Your task to perform on an android device: turn pop-ups off in chrome Image 0: 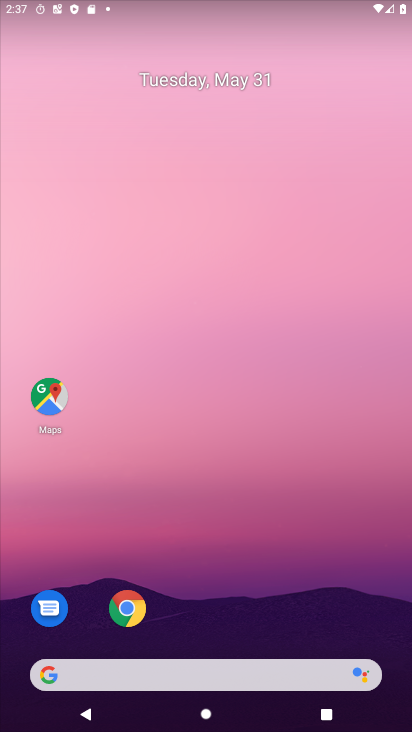
Step 0: click (127, 609)
Your task to perform on an android device: turn pop-ups off in chrome Image 1: 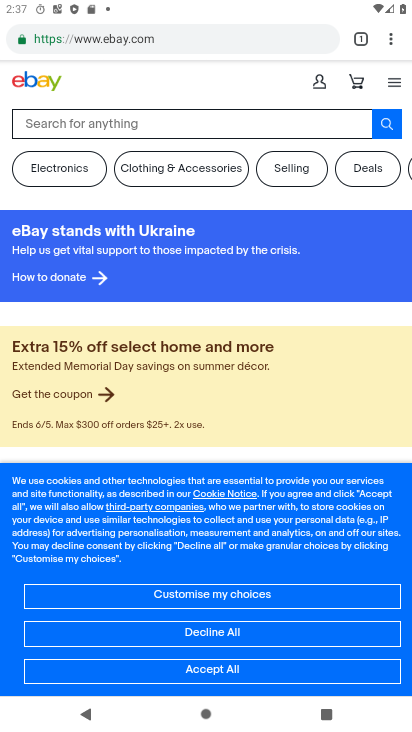
Step 1: click (392, 43)
Your task to perform on an android device: turn pop-ups off in chrome Image 2: 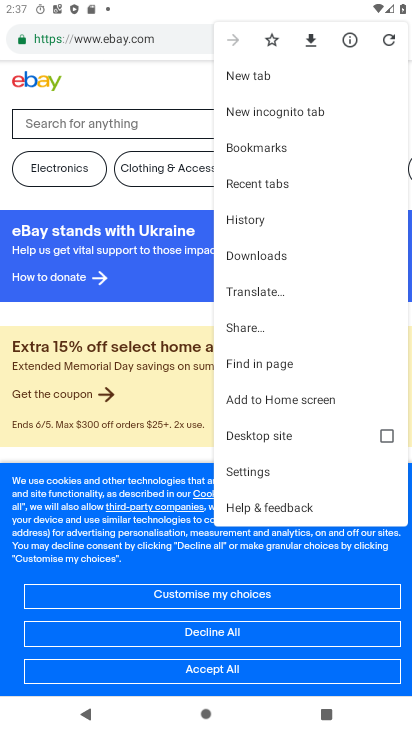
Step 2: click (268, 470)
Your task to perform on an android device: turn pop-ups off in chrome Image 3: 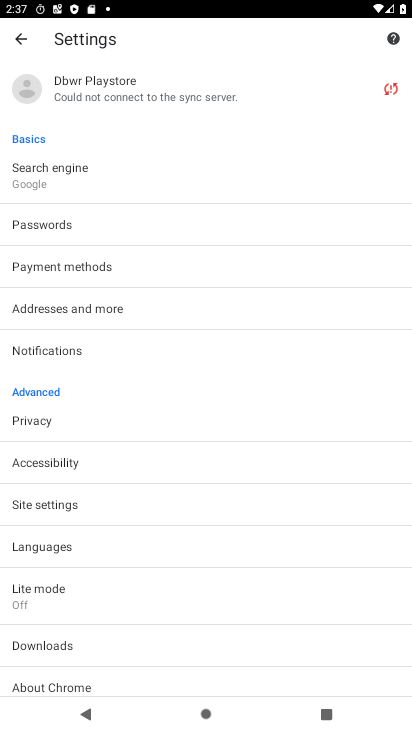
Step 3: click (51, 502)
Your task to perform on an android device: turn pop-ups off in chrome Image 4: 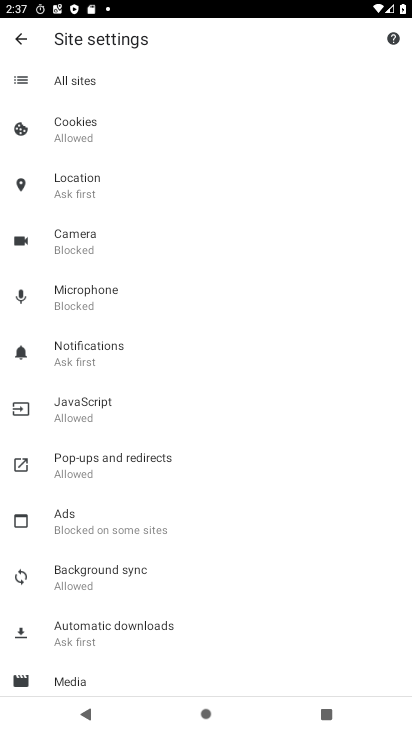
Step 4: drag from (79, 511) to (105, 345)
Your task to perform on an android device: turn pop-ups off in chrome Image 5: 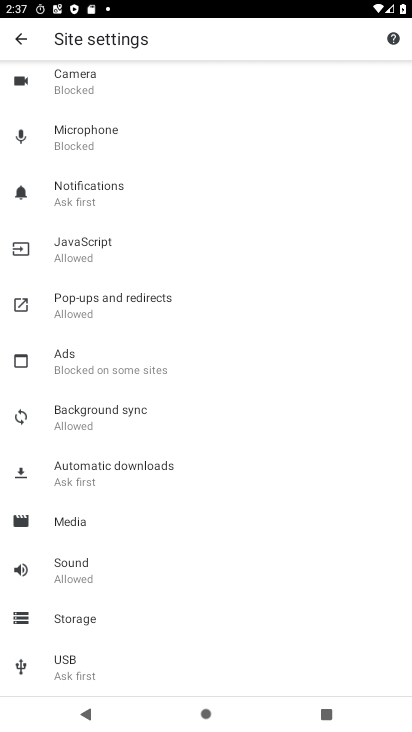
Step 5: click (98, 316)
Your task to perform on an android device: turn pop-ups off in chrome Image 6: 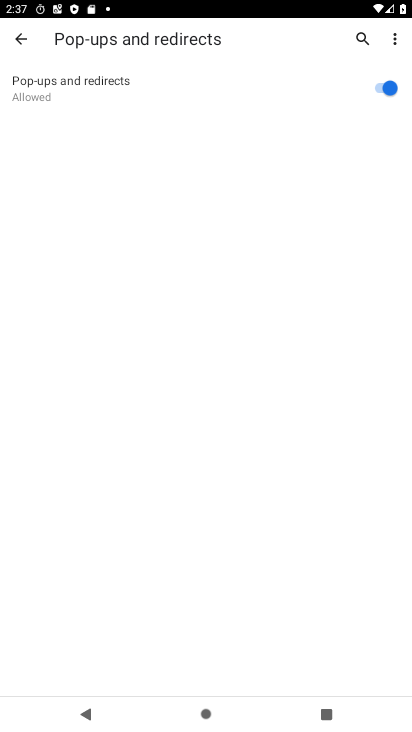
Step 6: click (362, 107)
Your task to perform on an android device: turn pop-ups off in chrome Image 7: 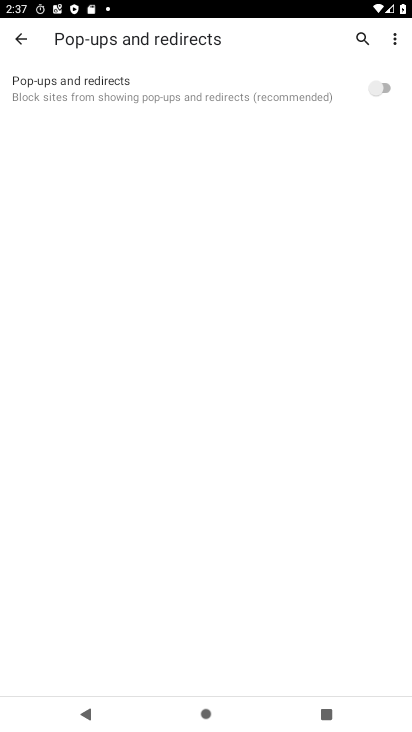
Step 7: task complete